Your task to perform on an android device: toggle wifi Image 0: 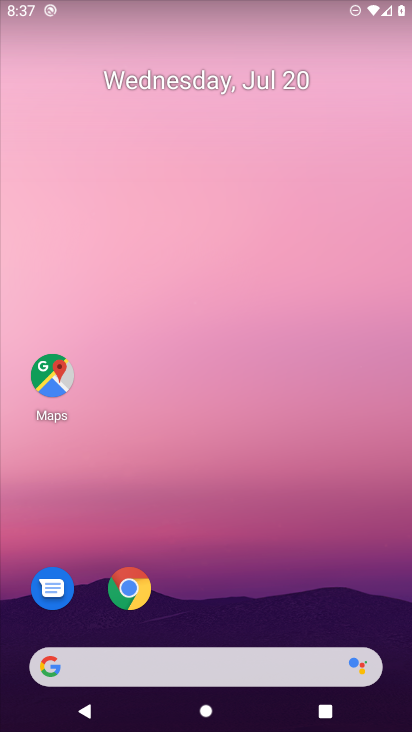
Step 0: drag from (38, 679) to (223, 112)
Your task to perform on an android device: toggle wifi Image 1: 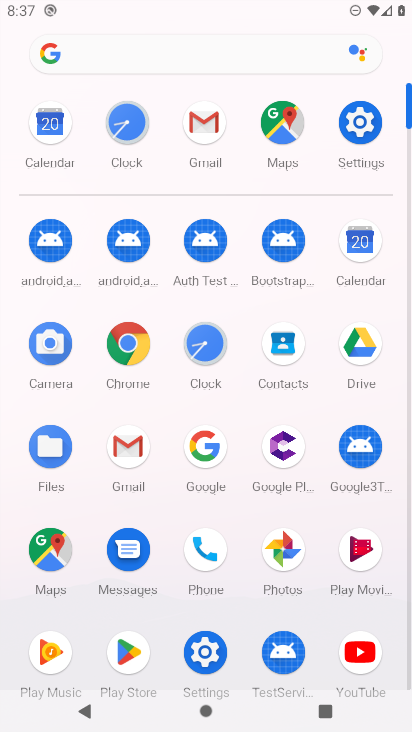
Step 1: click (217, 650)
Your task to perform on an android device: toggle wifi Image 2: 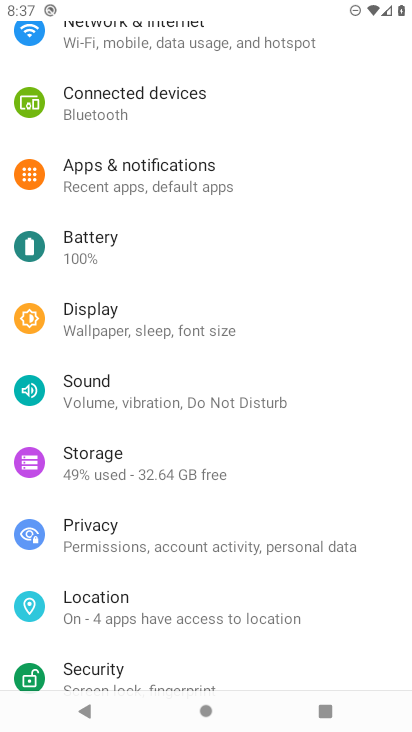
Step 2: drag from (295, 134) to (295, 507)
Your task to perform on an android device: toggle wifi Image 3: 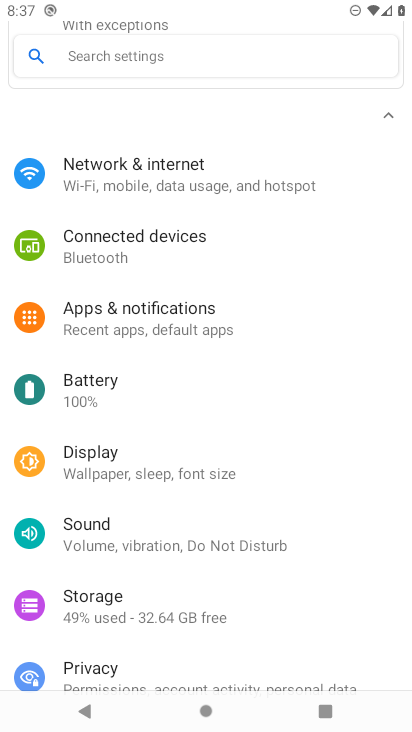
Step 3: click (205, 180)
Your task to perform on an android device: toggle wifi Image 4: 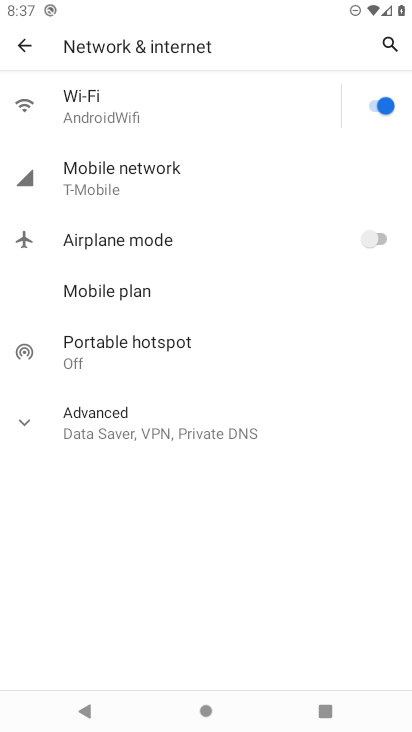
Step 4: task complete